Your task to perform on an android device: Show me the alarms in the clock app Image 0: 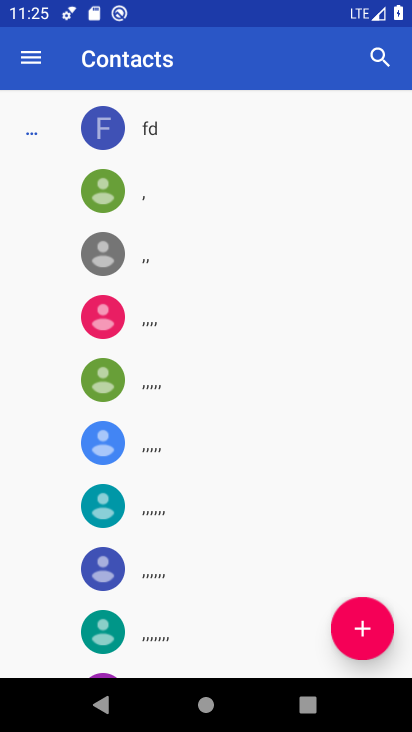
Step 0: press home button
Your task to perform on an android device: Show me the alarms in the clock app Image 1: 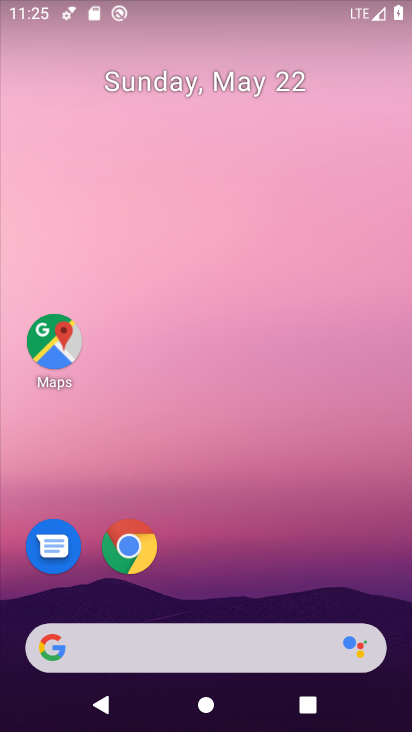
Step 1: drag from (292, 587) to (314, 219)
Your task to perform on an android device: Show me the alarms in the clock app Image 2: 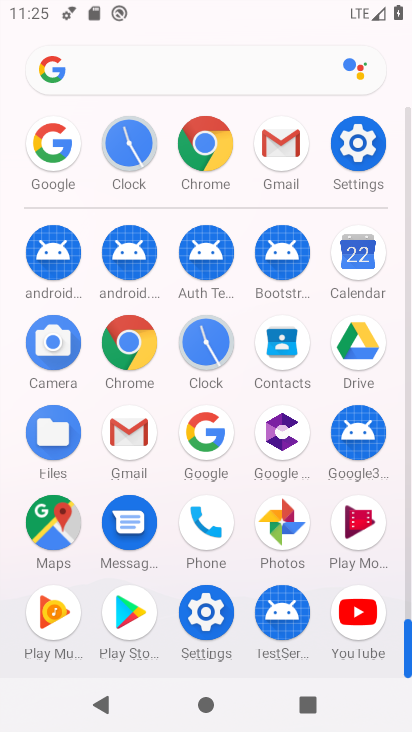
Step 2: click (218, 347)
Your task to perform on an android device: Show me the alarms in the clock app Image 3: 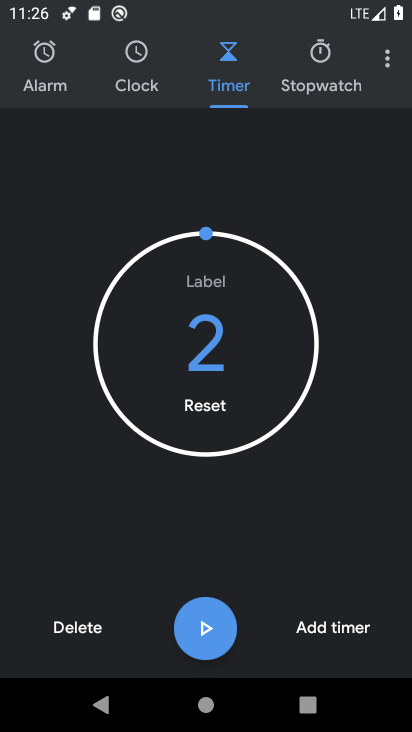
Step 3: click (64, 70)
Your task to perform on an android device: Show me the alarms in the clock app Image 4: 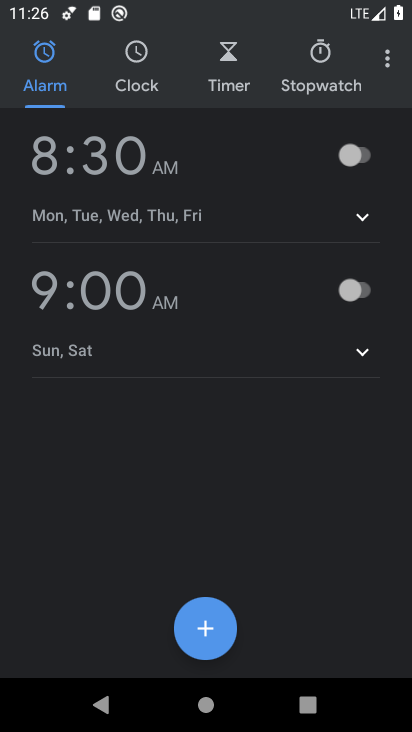
Step 4: task complete